Your task to perform on an android device: Go to Google maps Image 0: 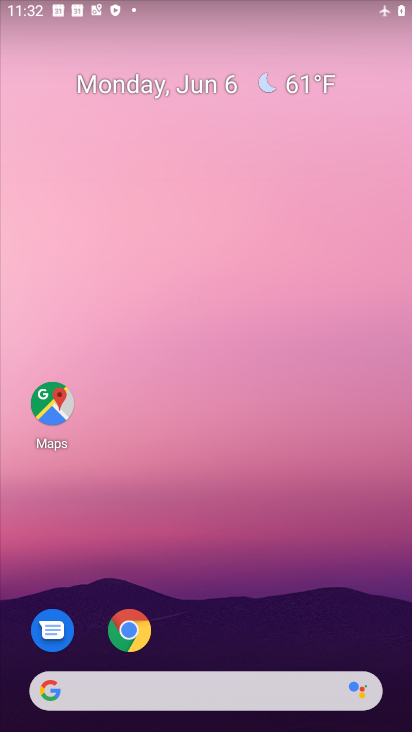
Step 0: drag from (362, 633) to (344, 80)
Your task to perform on an android device: Go to Google maps Image 1: 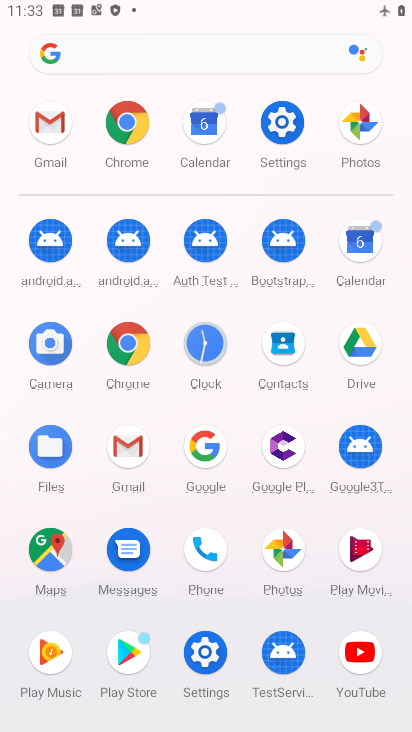
Step 1: click (57, 557)
Your task to perform on an android device: Go to Google maps Image 2: 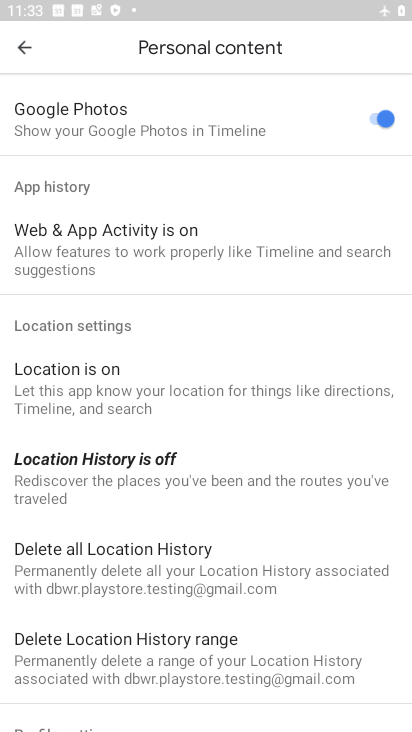
Step 2: press home button
Your task to perform on an android device: Go to Google maps Image 3: 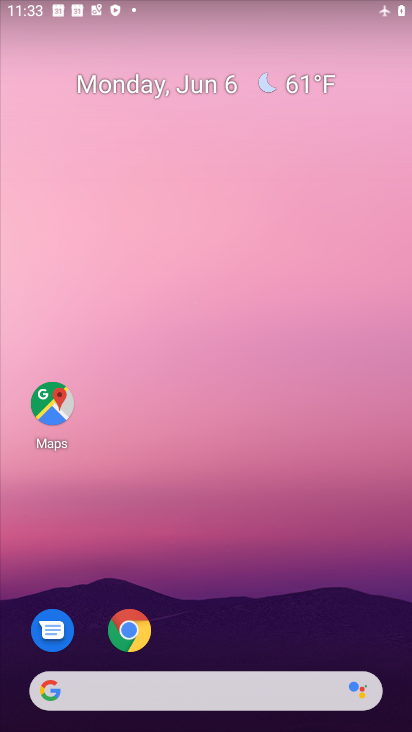
Step 3: drag from (216, 533) to (297, 166)
Your task to perform on an android device: Go to Google maps Image 4: 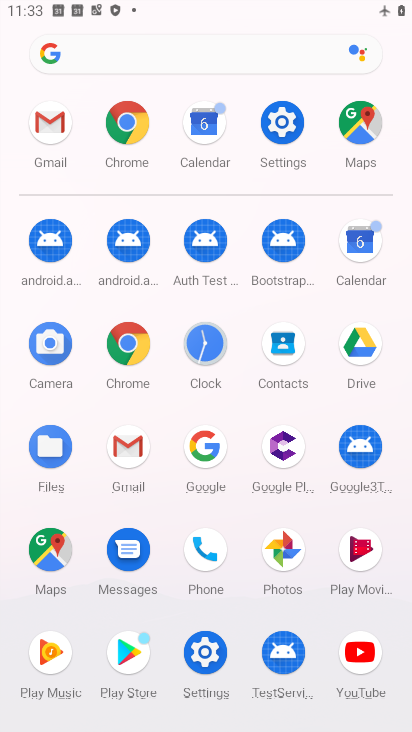
Step 4: click (39, 551)
Your task to perform on an android device: Go to Google maps Image 5: 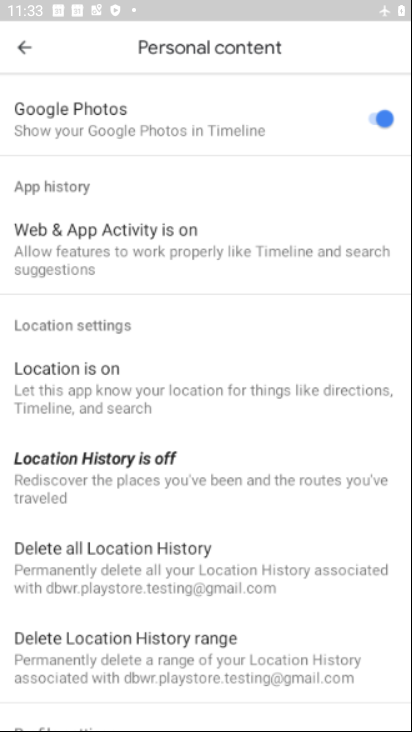
Step 5: task complete